Your task to perform on an android device: turn off airplane mode Image 0: 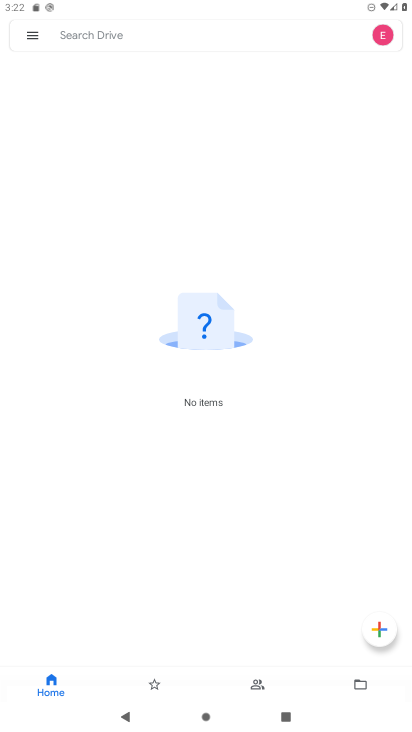
Step 0: press home button
Your task to perform on an android device: turn off airplane mode Image 1: 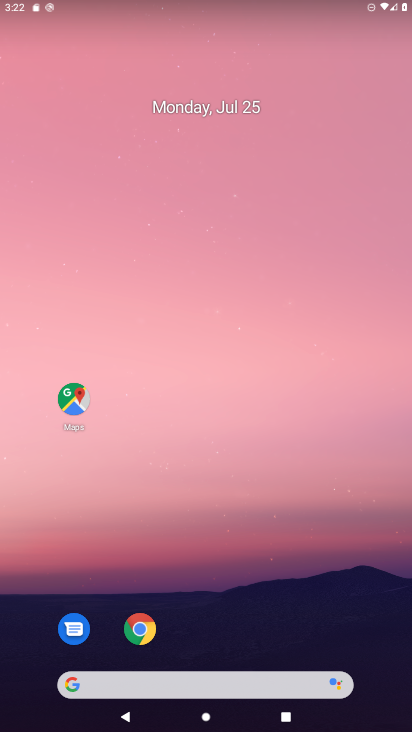
Step 1: drag from (275, 643) to (408, 95)
Your task to perform on an android device: turn off airplane mode Image 2: 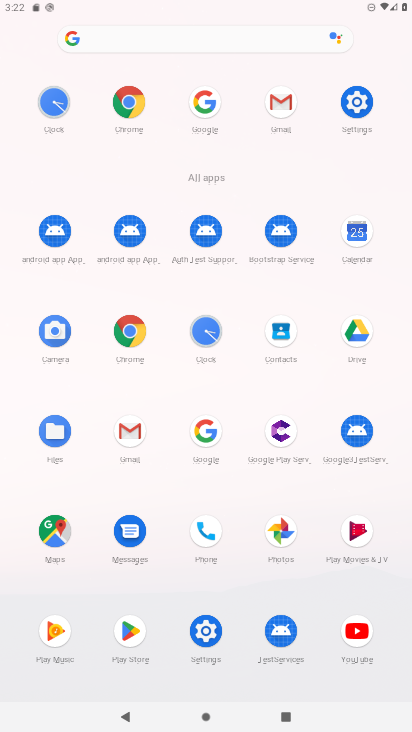
Step 2: click (354, 114)
Your task to perform on an android device: turn off airplane mode Image 3: 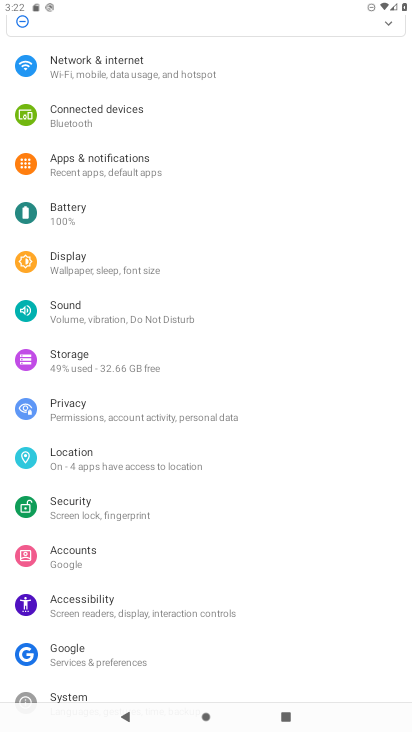
Step 3: click (80, 79)
Your task to perform on an android device: turn off airplane mode Image 4: 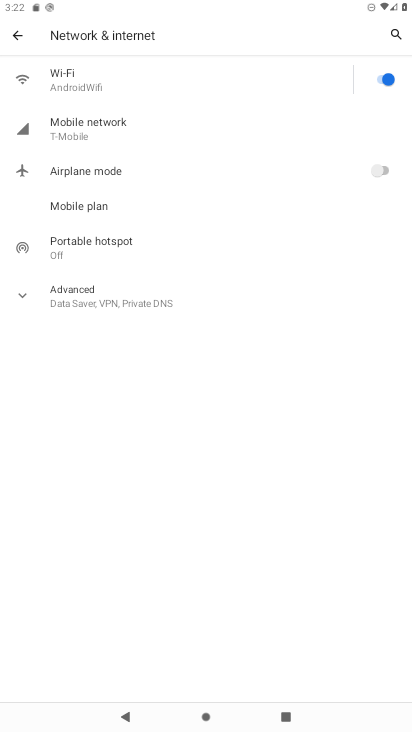
Step 4: task complete